Your task to perform on an android device: open a new tab in the chrome app Image 0: 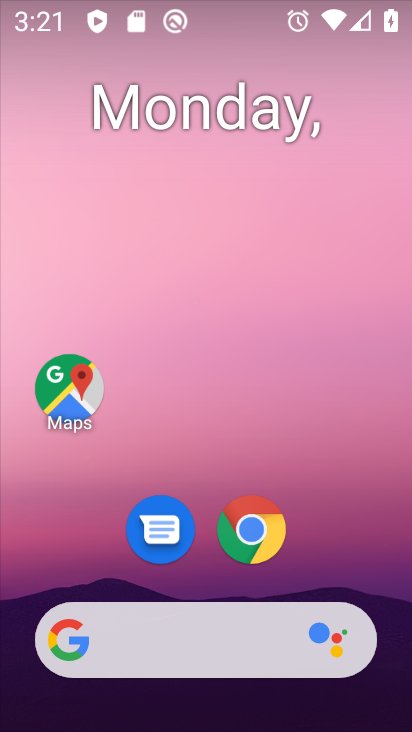
Step 0: click (246, 520)
Your task to perform on an android device: open a new tab in the chrome app Image 1: 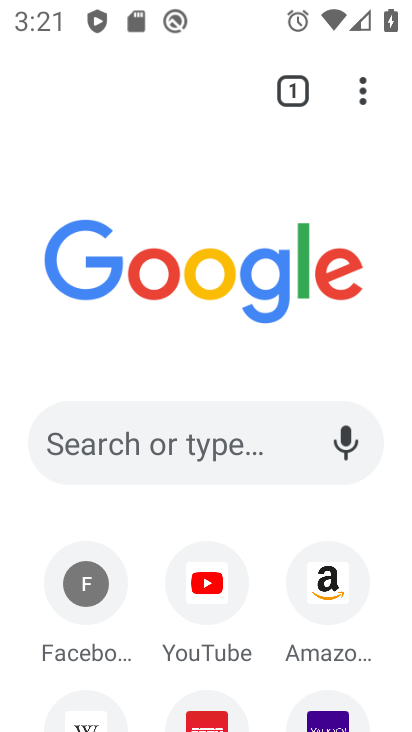
Step 1: click (366, 76)
Your task to perform on an android device: open a new tab in the chrome app Image 2: 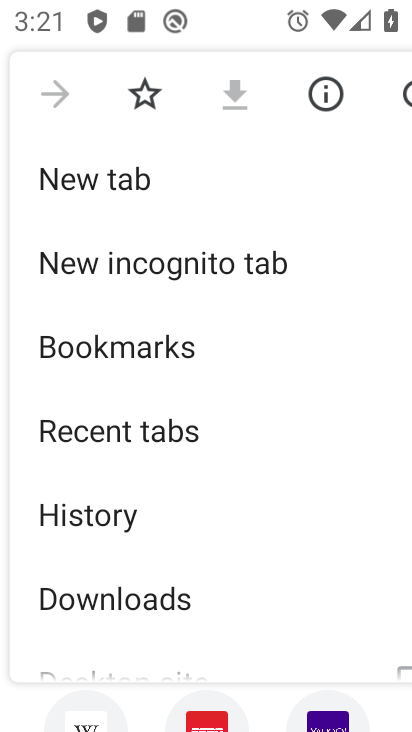
Step 2: click (147, 161)
Your task to perform on an android device: open a new tab in the chrome app Image 3: 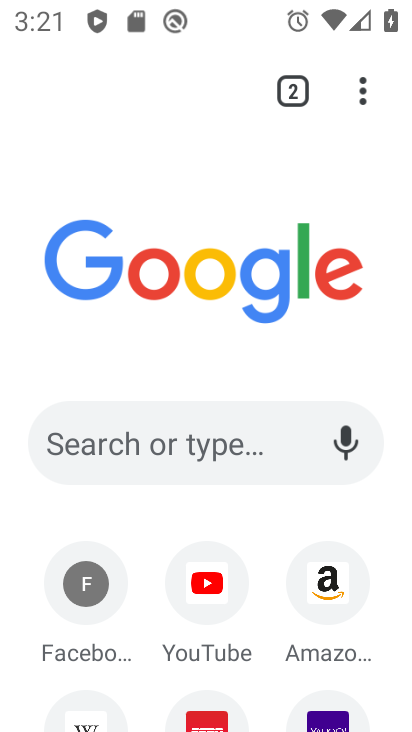
Step 3: task complete